Your task to perform on an android device: delete browsing data in the chrome app Image 0: 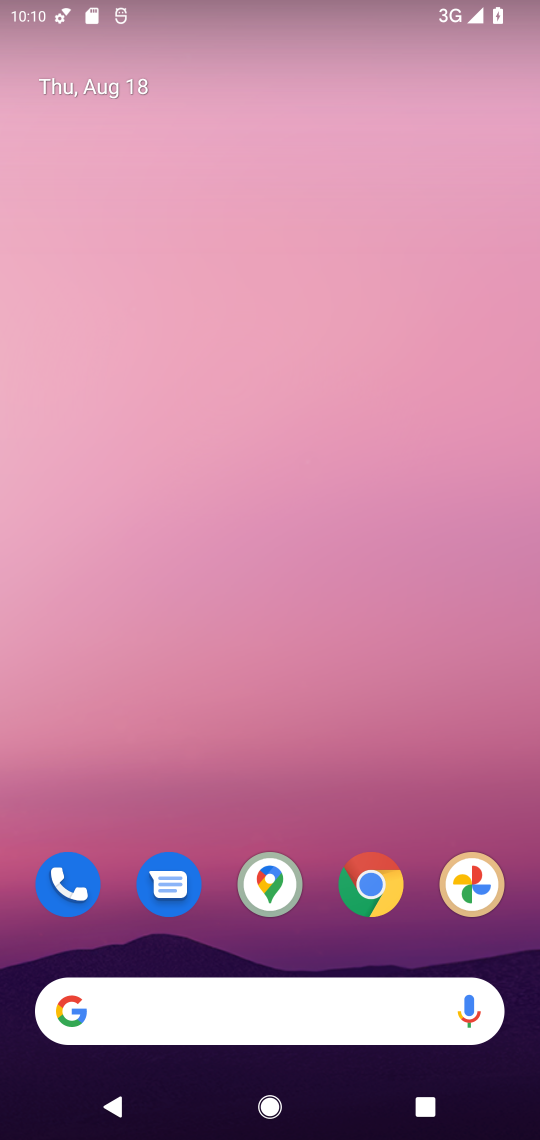
Step 0: click (260, 890)
Your task to perform on an android device: delete browsing data in the chrome app Image 1: 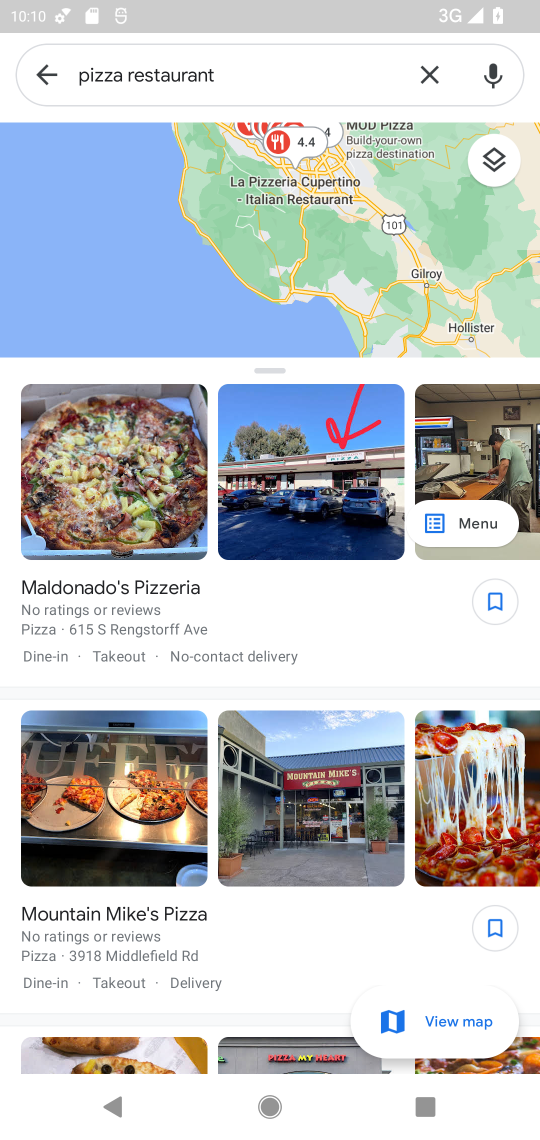
Step 1: click (38, 73)
Your task to perform on an android device: delete browsing data in the chrome app Image 2: 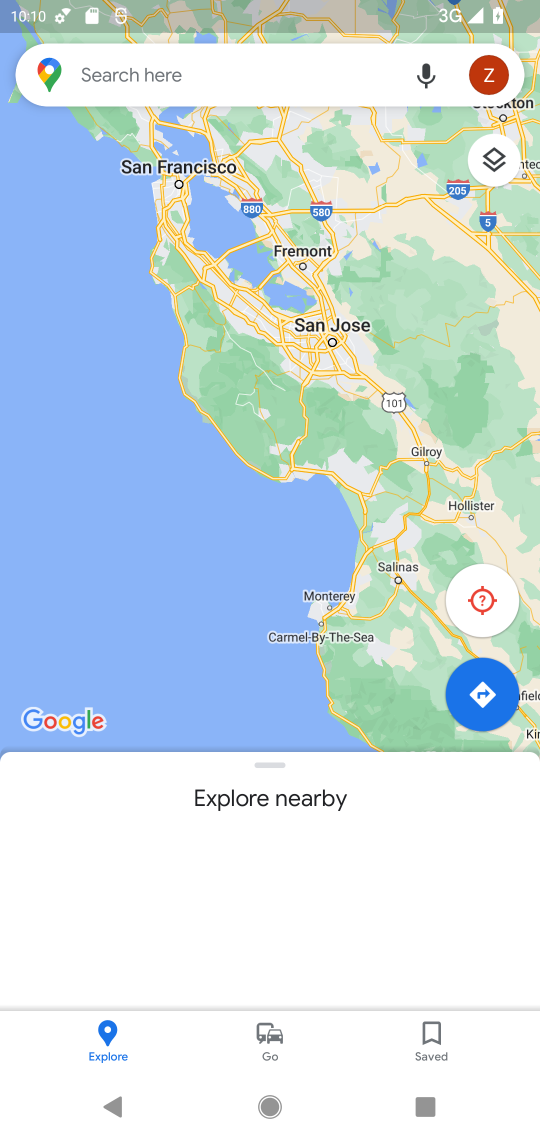
Step 2: click (477, 76)
Your task to perform on an android device: delete browsing data in the chrome app Image 3: 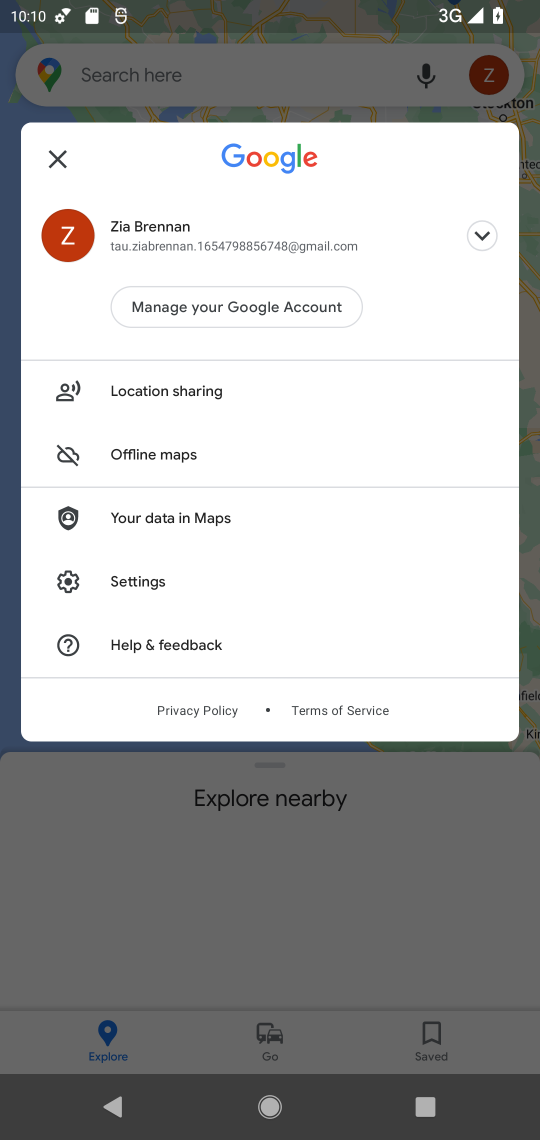
Step 3: click (105, 552)
Your task to perform on an android device: delete browsing data in the chrome app Image 4: 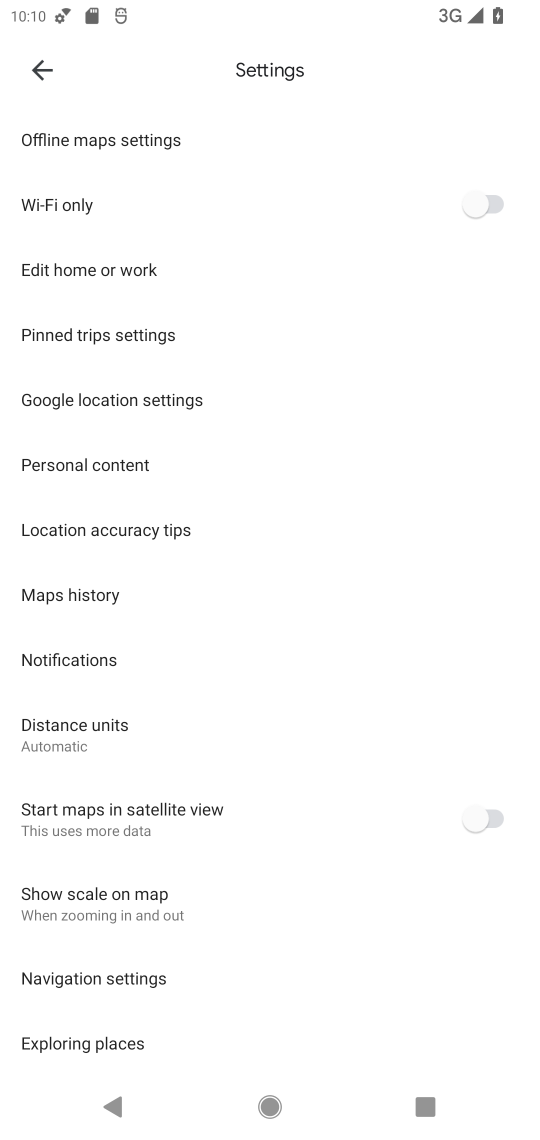
Step 4: task complete